Your task to perform on an android device: Open Youtube and go to the subscriptions tab Image 0: 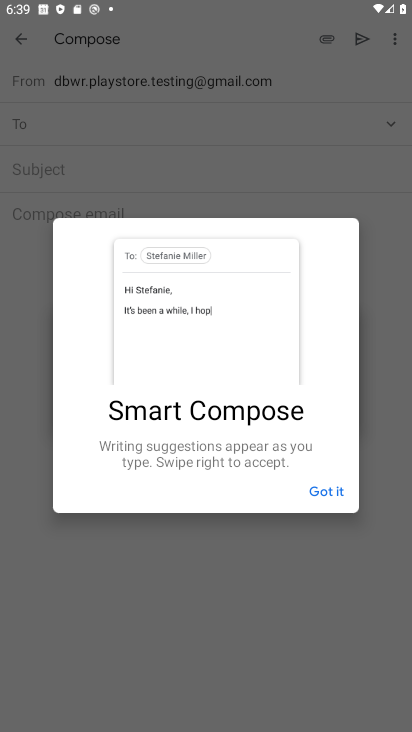
Step 0: press home button
Your task to perform on an android device: Open Youtube and go to the subscriptions tab Image 1: 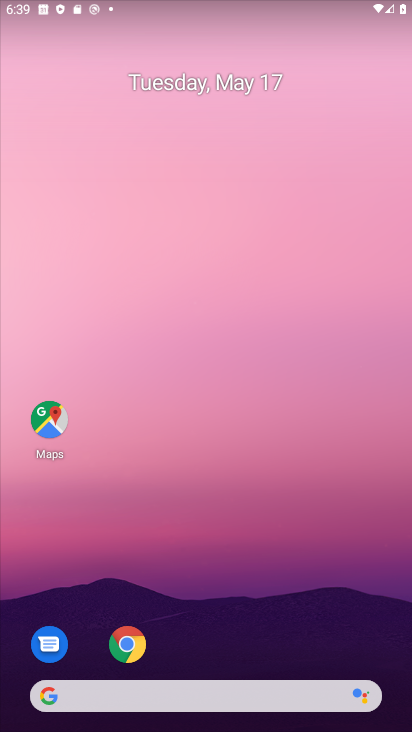
Step 1: click (395, 644)
Your task to perform on an android device: Open Youtube and go to the subscriptions tab Image 2: 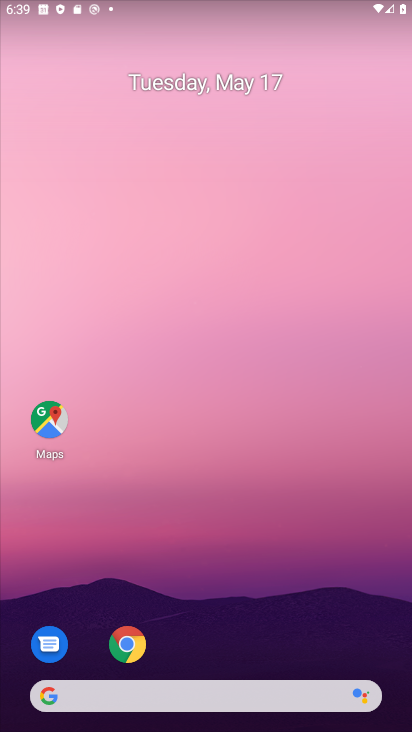
Step 2: drag from (411, 658) to (371, 32)
Your task to perform on an android device: Open Youtube and go to the subscriptions tab Image 3: 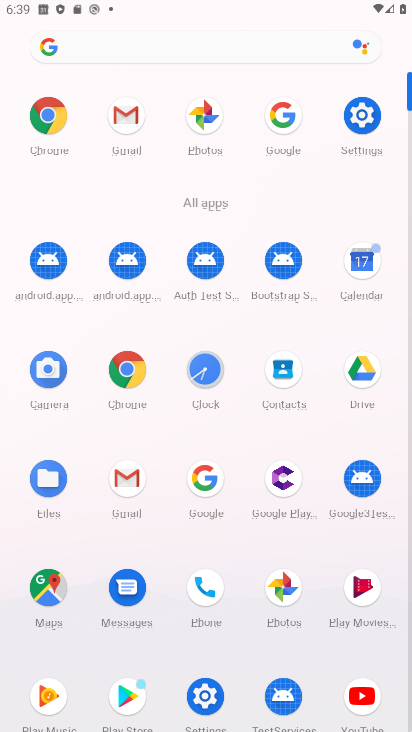
Step 3: click (364, 701)
Your task to perform on an android device: Open Youtube and go to the subscriptions tab Image 4: 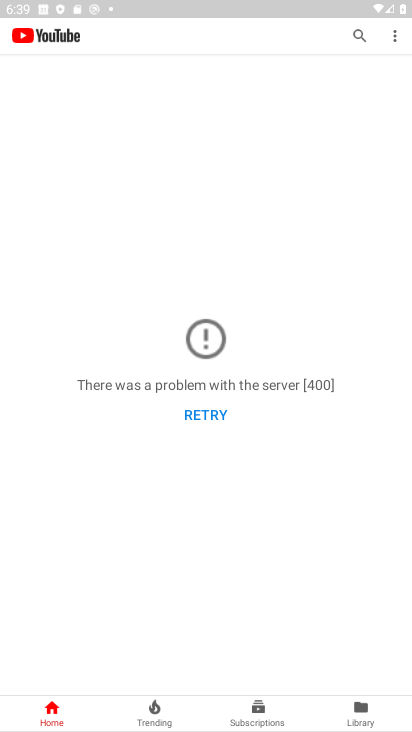
Step 4: click (187, 419)
Your task to perform on an android device: Open Youtube and go to the subscriptions tab Image 5: 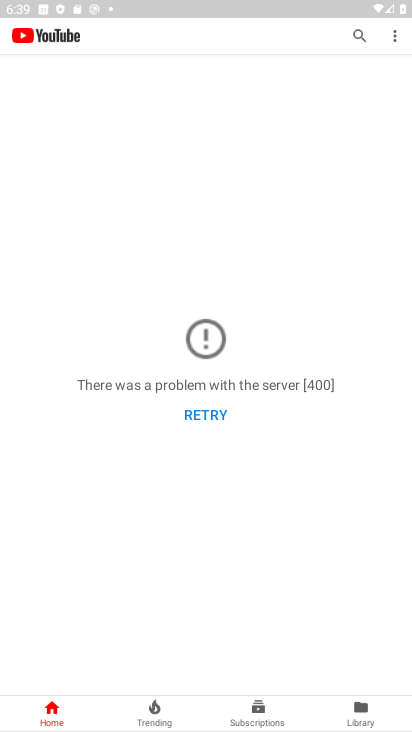
Step 5: click (197, 418)
Your task to perform on an android device: Open Youtube and go to the subscriptions tab Image 6: 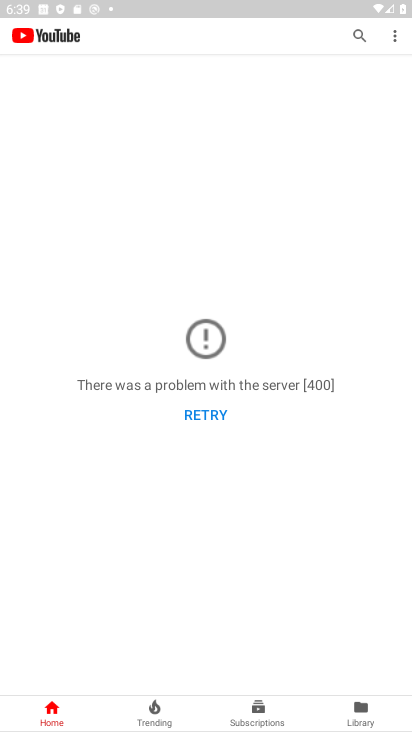
Step 6: click (267, 708)
Your task to perform on an android device: Open Youtube and go to the subscriptions tab Image 7: 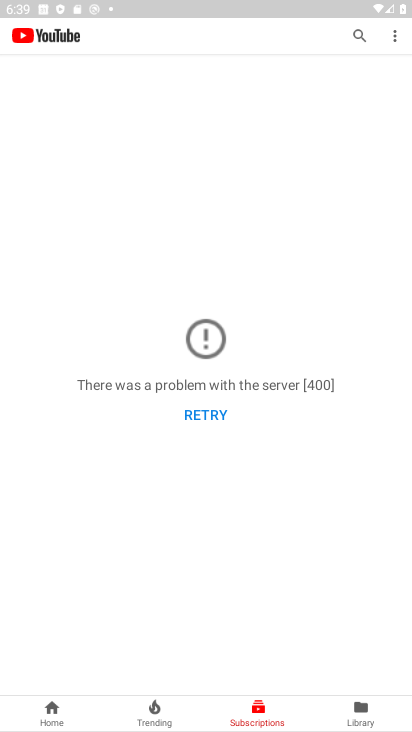
Step 7: click (195, 417)
Your task to perform on an android device: Open Youtube and go to the subscriptions tab Image 8: 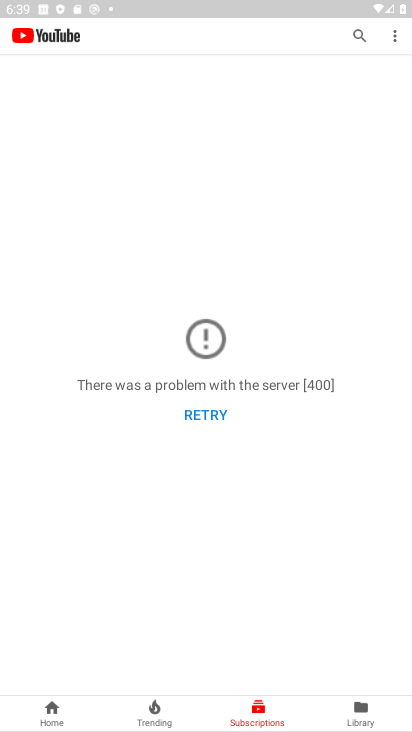
Step 8: click (201, 405)
Your task to perform on an android device: Open Youtube and go to the subscriptions tab Image 9: 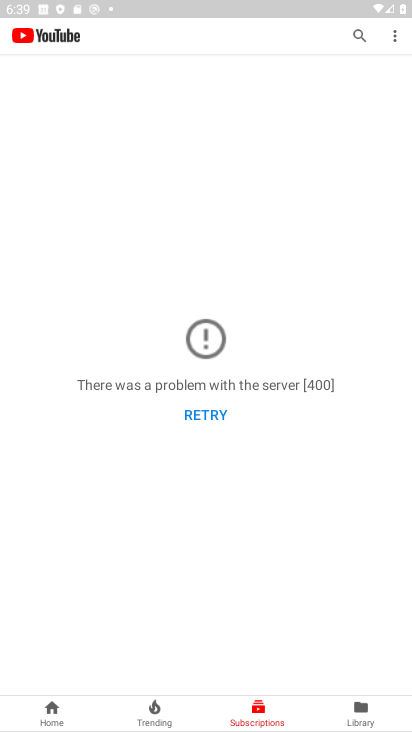
Step 9: task complete